Your task to perform on an android device: What's on my calendar today? Image 0: 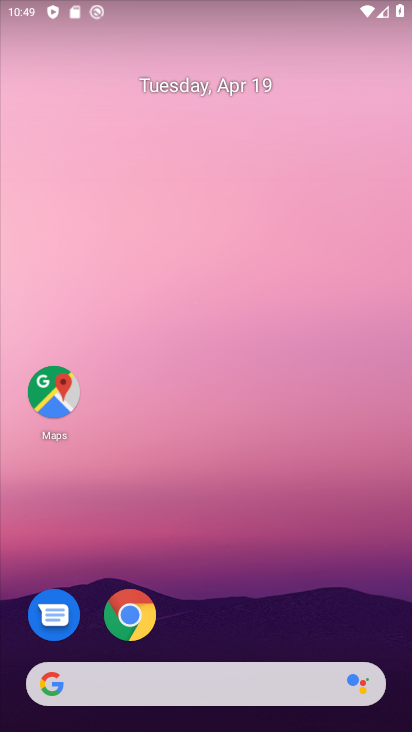
Step 0: drag from (244, 481) to (258, 128)
Your task to perform on an android device: What's on my calendar today? Image 1: 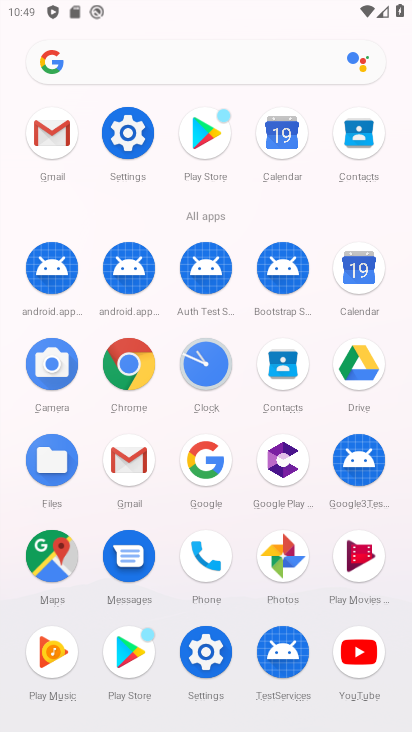
Step 1: click (358, 267)
Your task to perform on an android device: What's on my calendar today? Image 2: 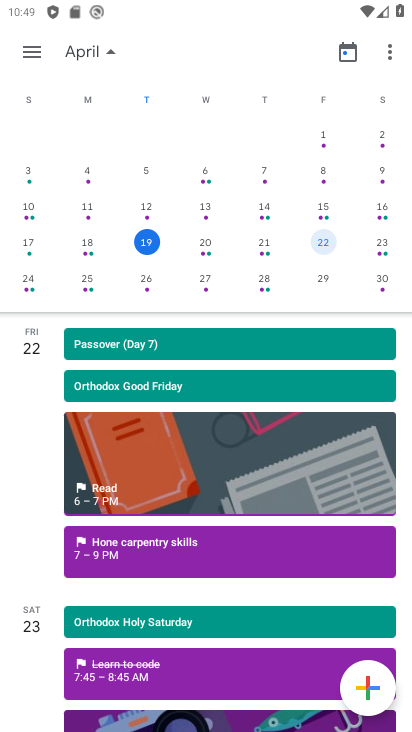
Step 2: click (148, 246)
Your task to perform on an android device: What's on my calendar today? Image 3: 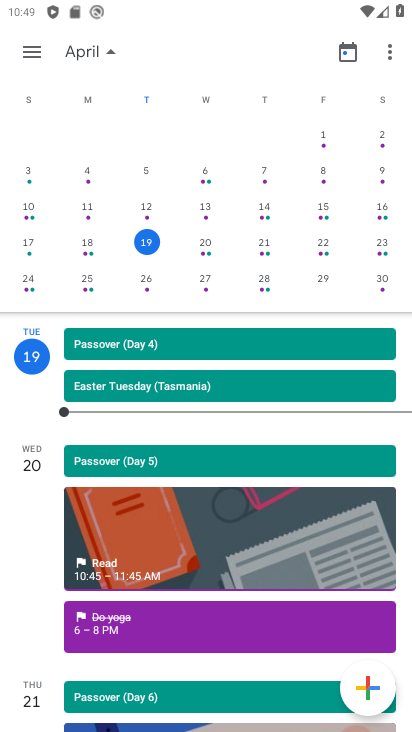
Step 3: task complete